Your task to perform on an android device: Go to internet settings Image 0: 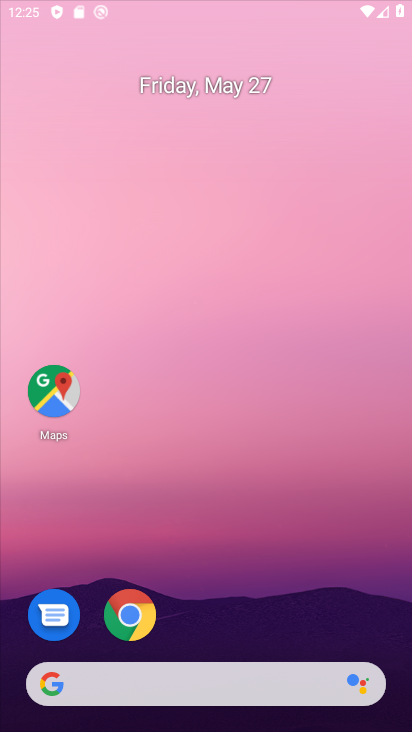
Step 0: press home button
Your task to perform on an android device: Go to internet settings Image 1: 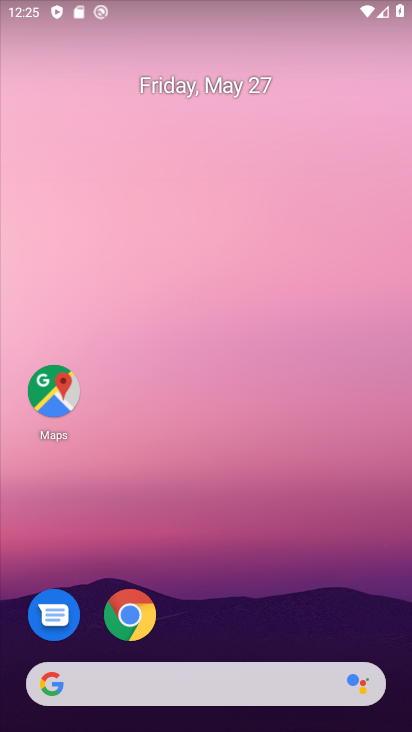
Step 1: drag from (251, 626) to (198, 114)
Your task to perform on an android device: Go to internet settings Image 2: 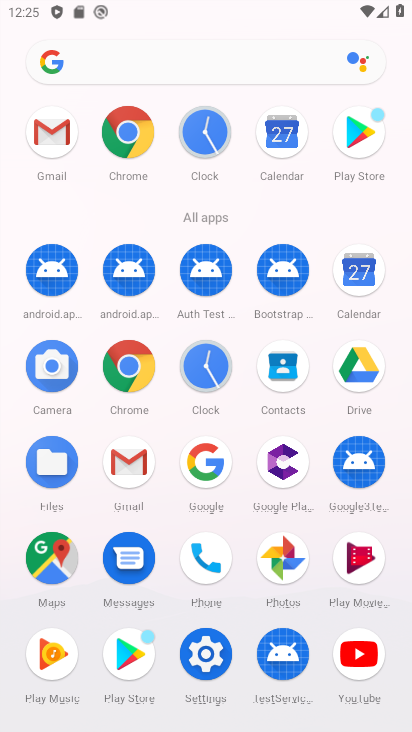
Step 2: click (204, 645)
Your task to perform on an android device: Go to internet settings Image 3: 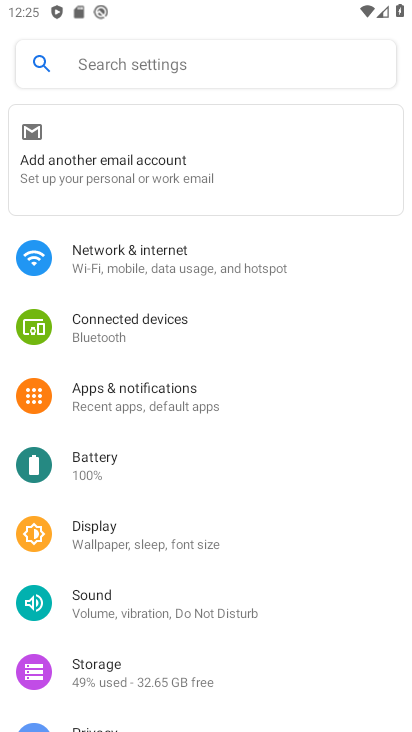
Step 3: click (135, 262)
Your task to perform on an android device: Go to internet settings Image 4: 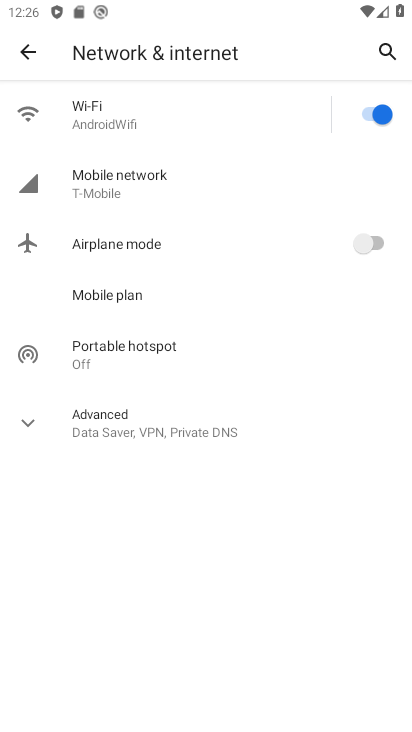
Step 4: task complete